Your task to perform on an android device: turn on showing notifications on the lock screen Image 0: 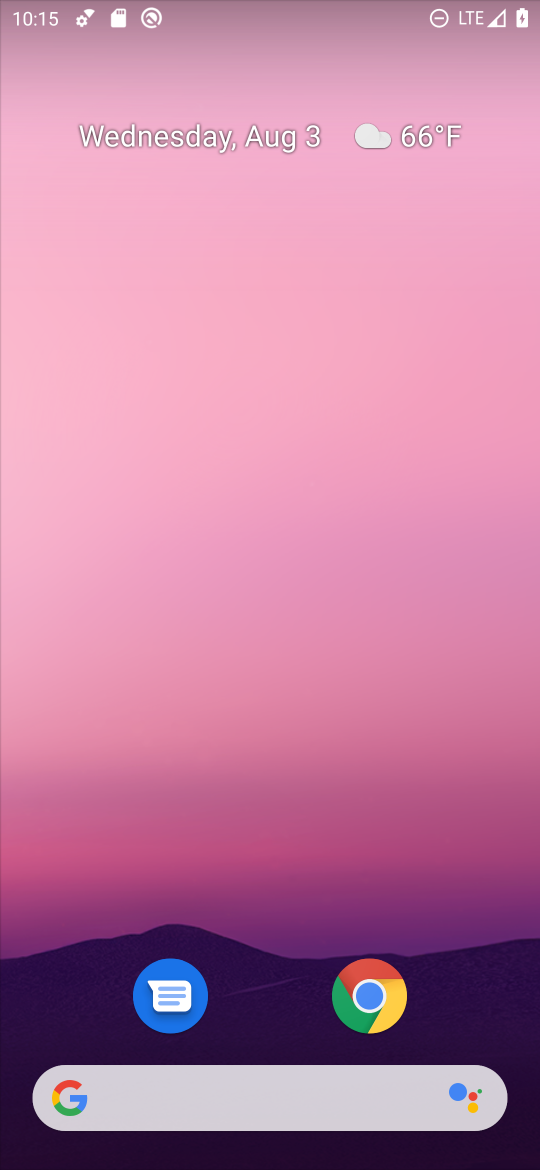
Step 0: drag from (281, 876) to (197, 0)
Your task to perform on an android device: turn on showing notifications on the lock screen Image 1: 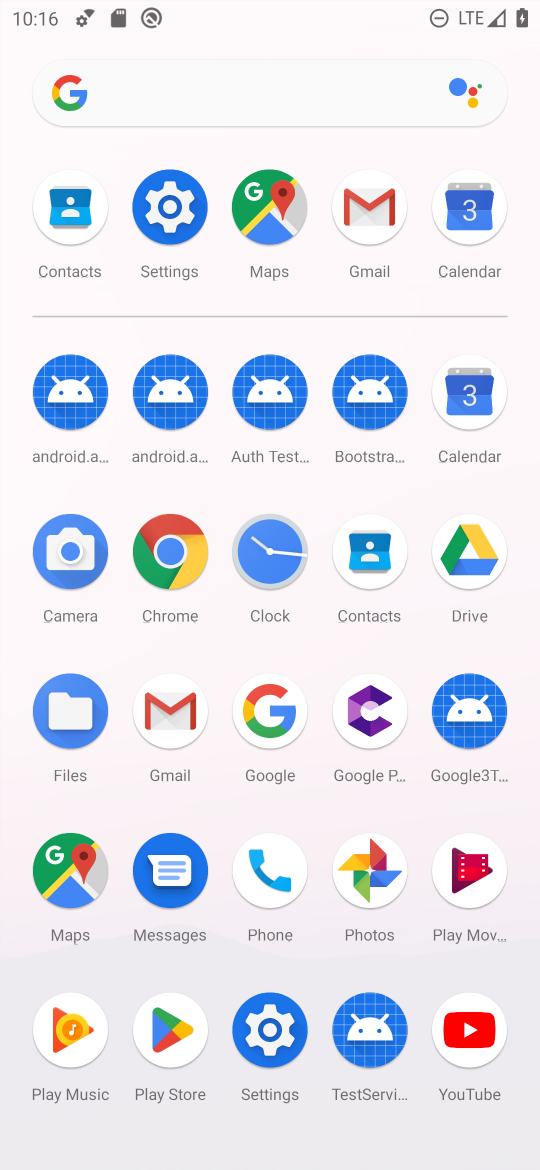
Step 1: click (171, 219)
Your task to perform on an android device: turn on showing notifications on the lock screen Image 2: 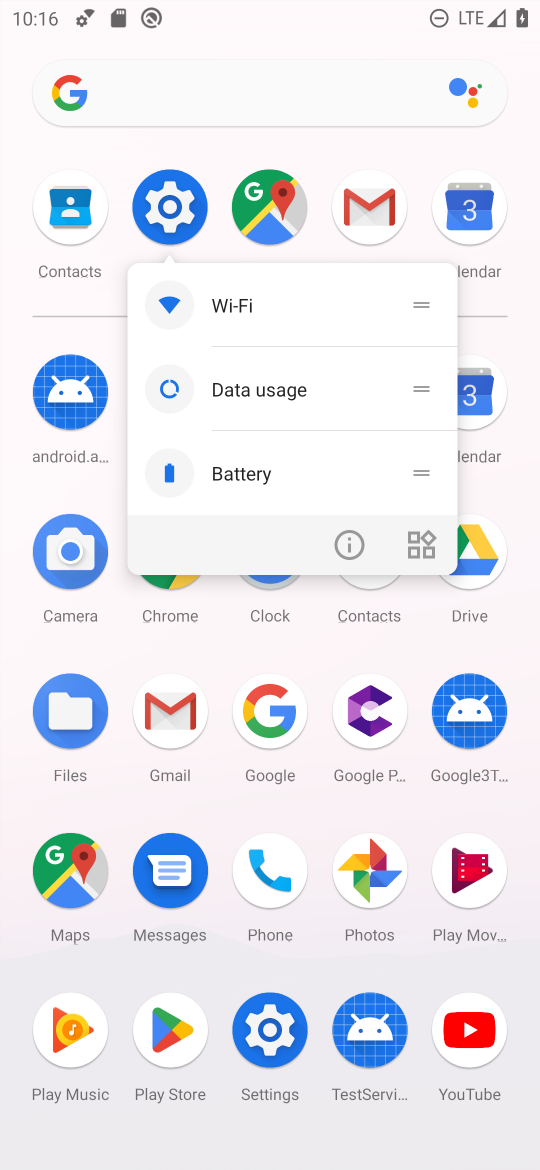
Step 2: click (171, 222)
Your task to perform on an android device: turn on showing notifications on the lock screen Image 3: 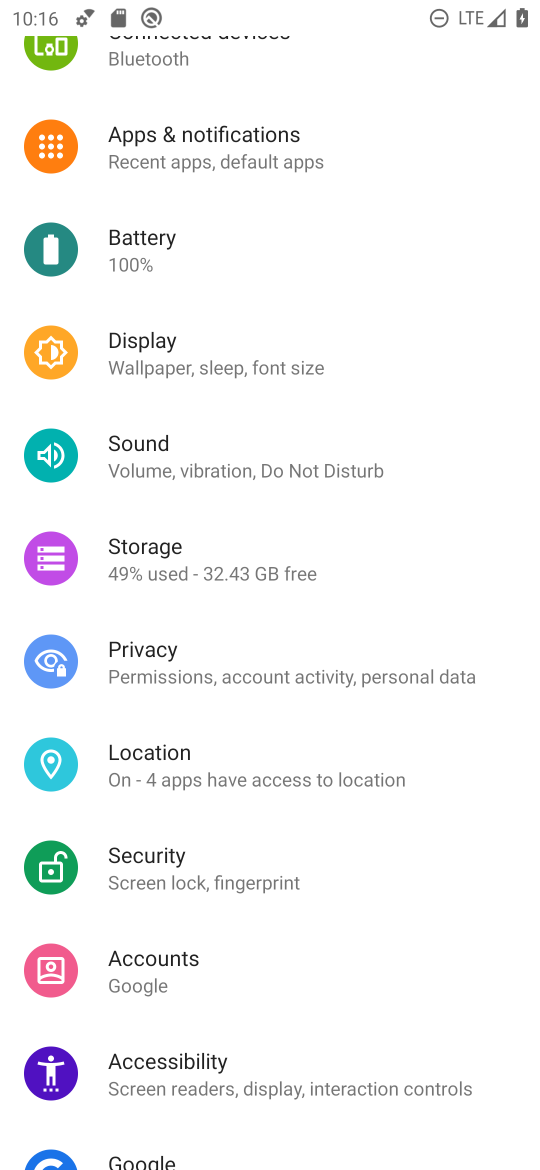
Step 3: click (201, 154)
Your task to perform on an android device: turn on showing notifications on the lock screen Image 4: 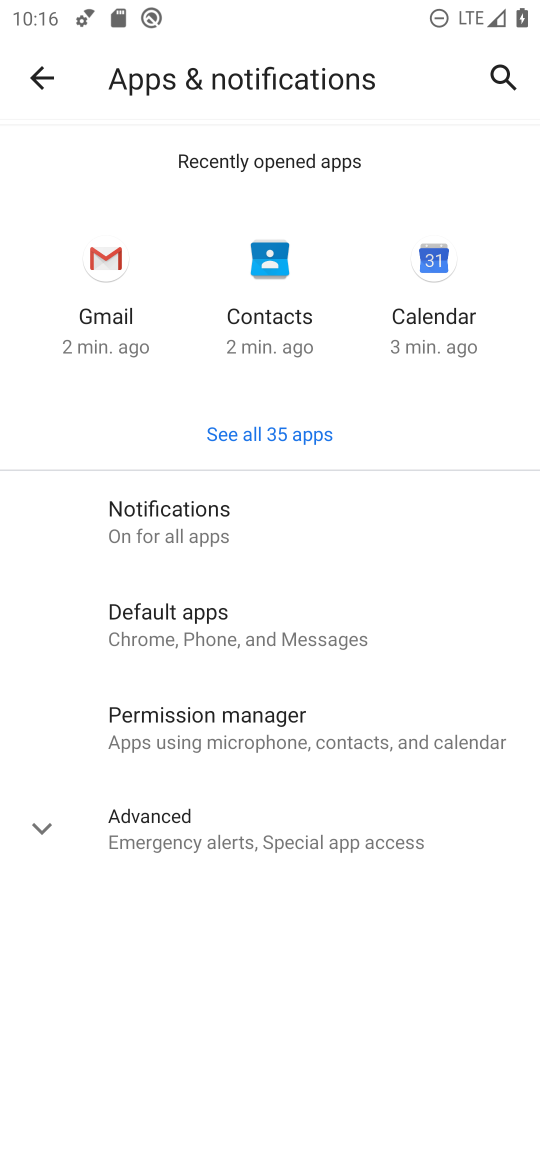
Step 4: click (219, 502)
Your task to perform on an android device: turn on showing notifications on the lock screen Image 5: 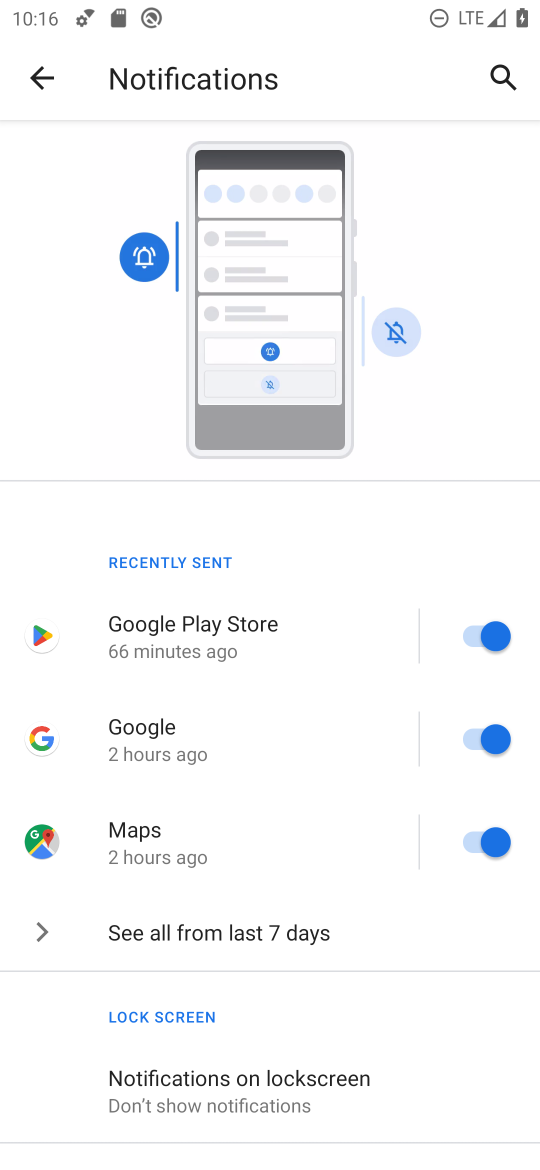
Step 5: drag from (316, 832) to (321, 245)
Your task to perform on an android device: turn on showing notifications on the lock screen Image 6: 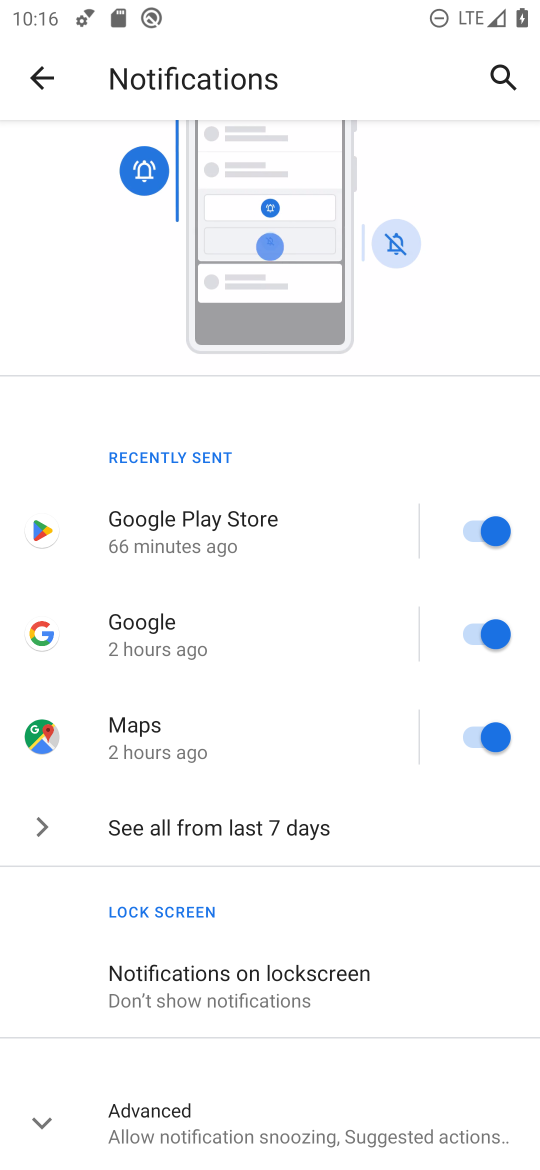
Step 6: click (299, 969)
Your task to perform on an android device: turn on showing notifications on the lock screen Image 7: 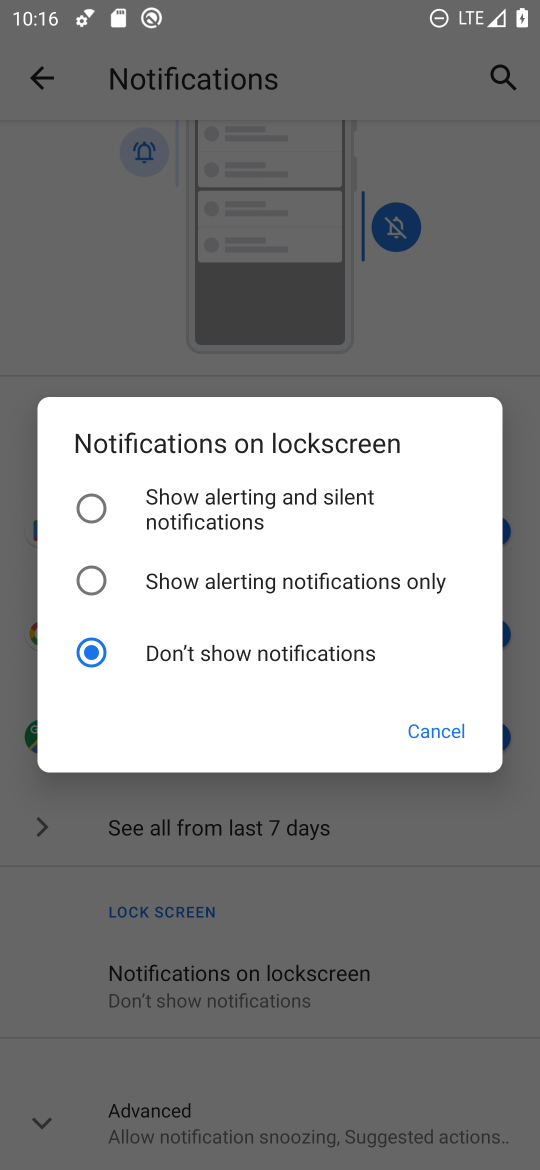
Step 7: click (101, 496)
Your task to perform on an android device: turn on showing notifications on the lock screen Image 8: 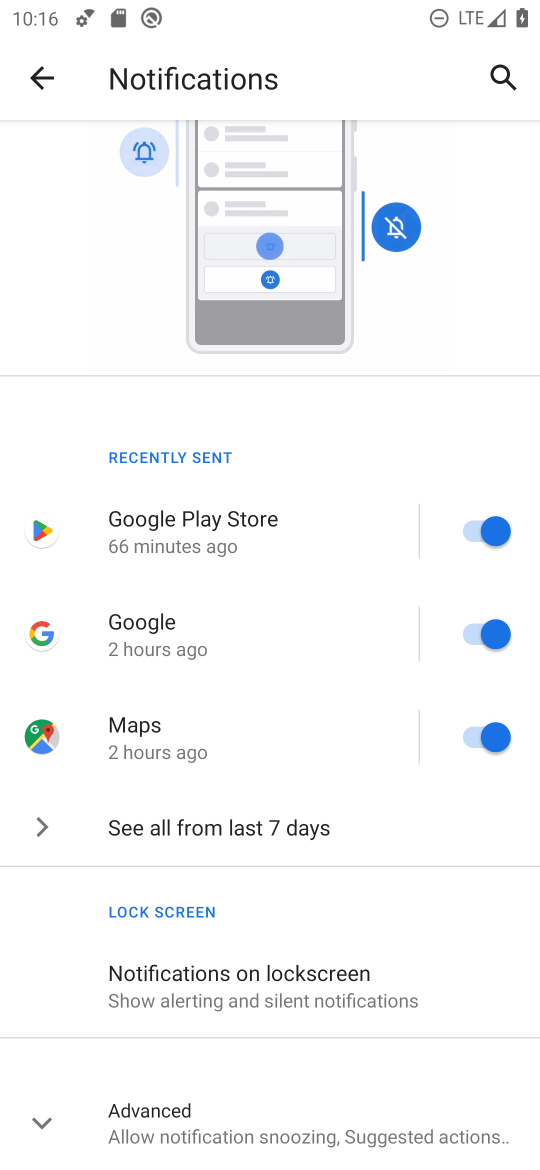
Step 8: task complete